Your task to perform on an android device: Open Maps and search for coffee Image 0: 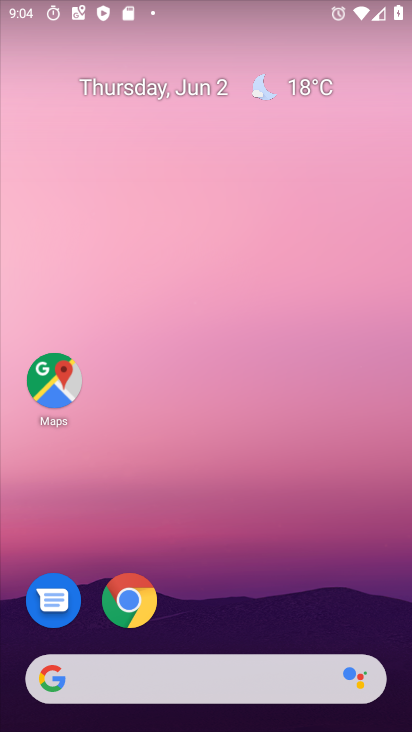
Step 0: drag from (362, 619) to (387, 275)
Your task to perform on an android device: Open Maps and search for coffee Image 1: 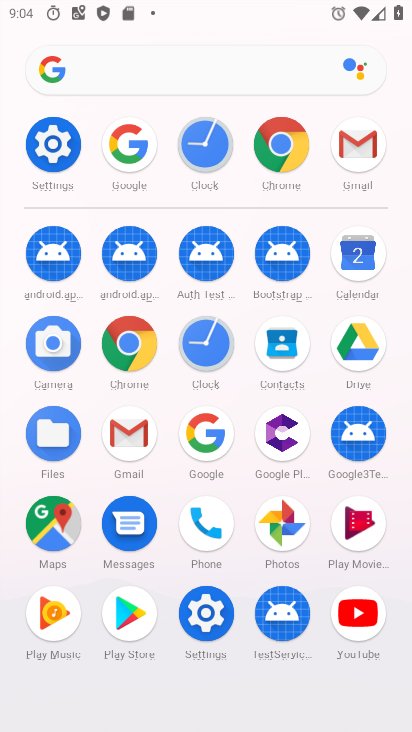
Step 1: click (50, 531)
Your task to perform on an android device: Open Maps and search for coffee Image 2: 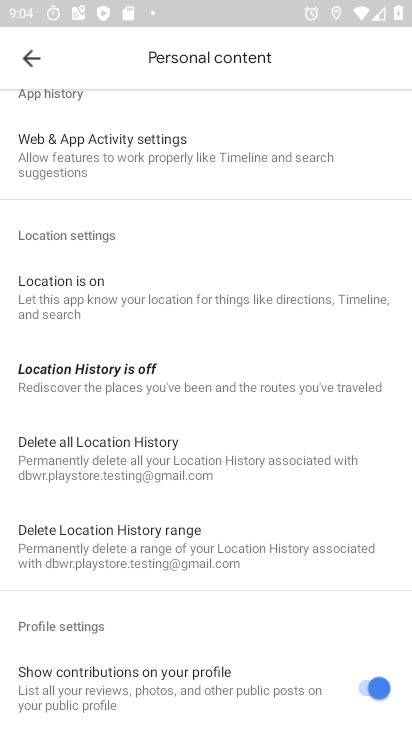
Step 2: press back button
Your task to perform on an android device: Open Maps and search for coffee Image 3: 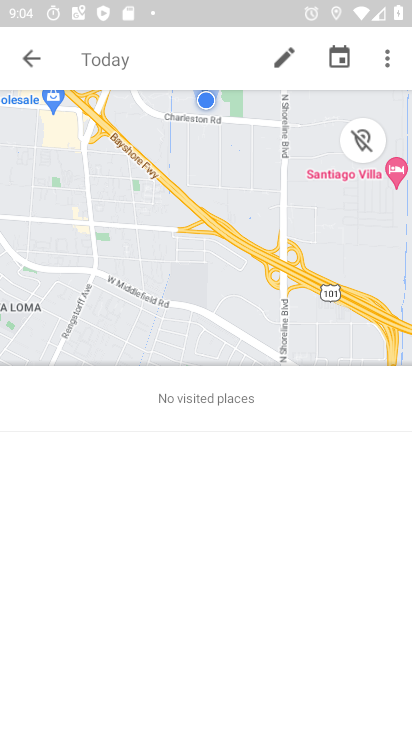
Step 3: press back button
Your task to perform on an android device: Open Maps and search for coffee Image 4: 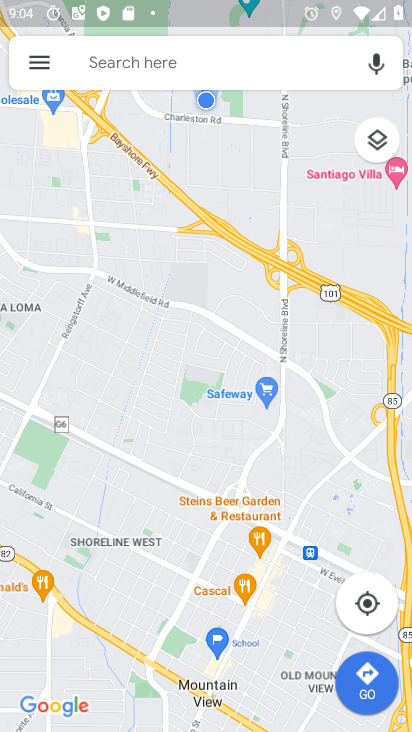
Step 4: click (237, 63)
Your task to perform on an android device: Open Maps and search for coffee Image 5: 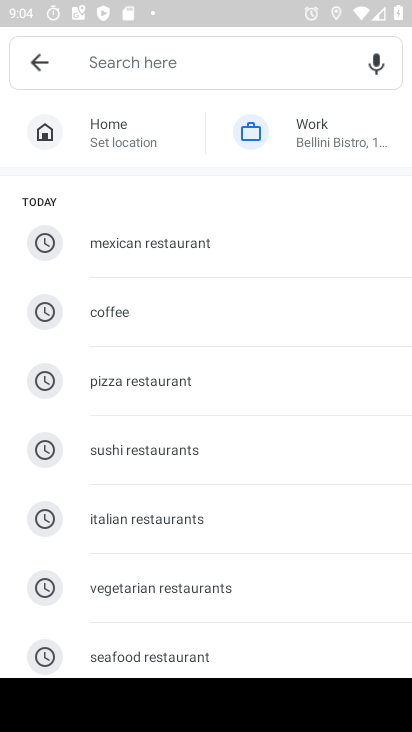
Step 5: type "coffee"
Your task to perform on an android device: Open Maps and search for coffee Image 6: 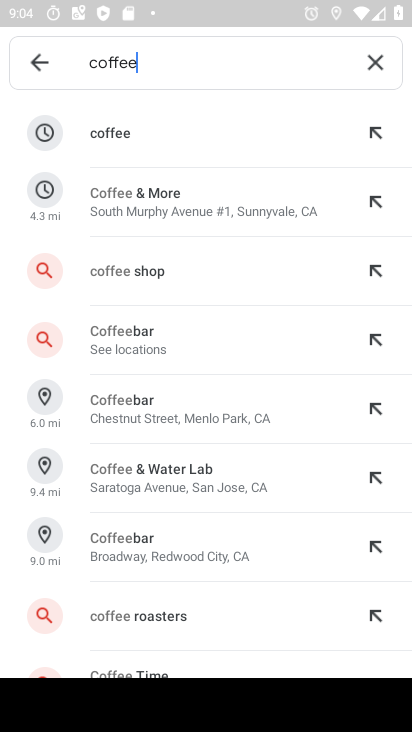
Step 6: click (153, 140)
Your task to perform on an android device: Open Maps and search for coffee Image 7: 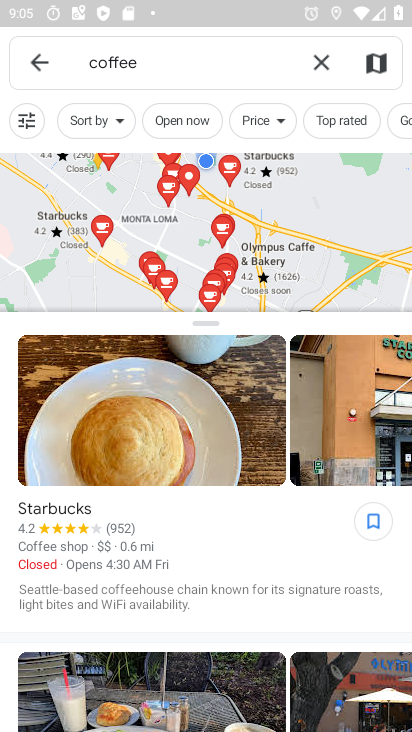
Step 7: task complete